Your task to perform on an android device: turn off improve location accuracy Image 0: 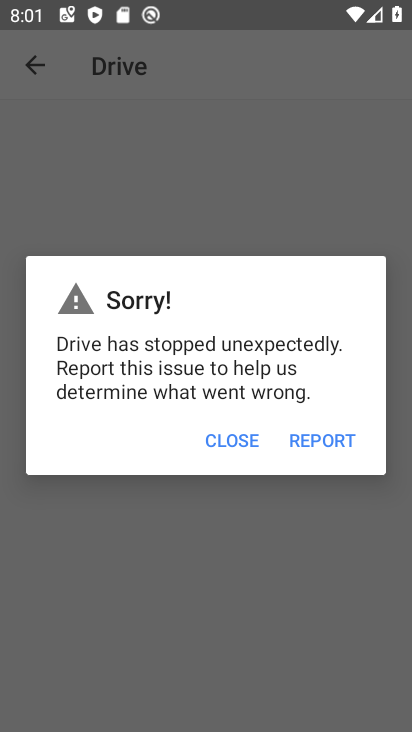
Step 0: press home button
Your task to perform on an android device: turn off improve location accuracy Image 1: 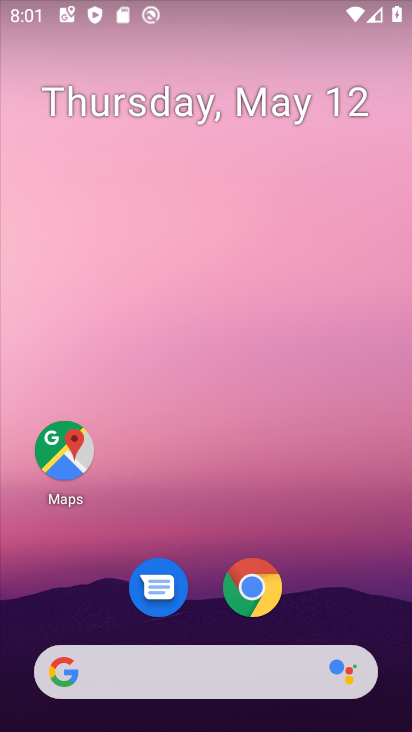
Step 1: drag from (266, 502) to (233, 110)
Your task to perform on an android device: turn off improve location accuracy Image 2: 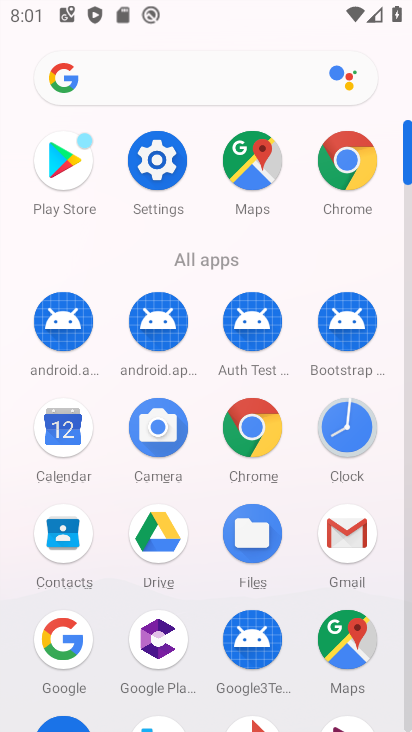
Step 2: click (159, 152)
Your task to perform on an android device: turn off improve location accuracy Image 3: 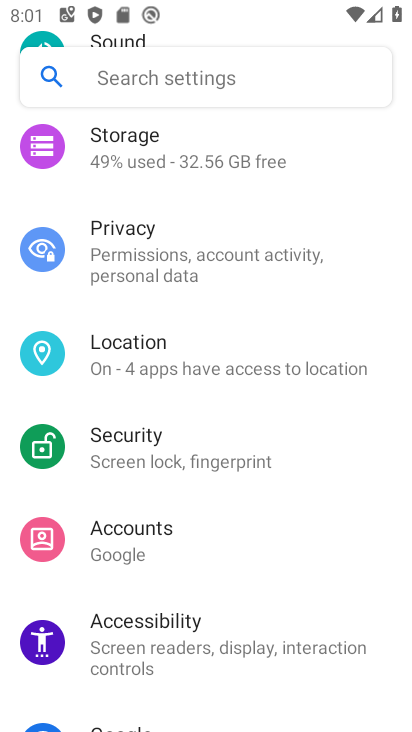
Step 3: click (187, 344)
Your task to perform on an android device: turn off improve location accuracy Image 4: 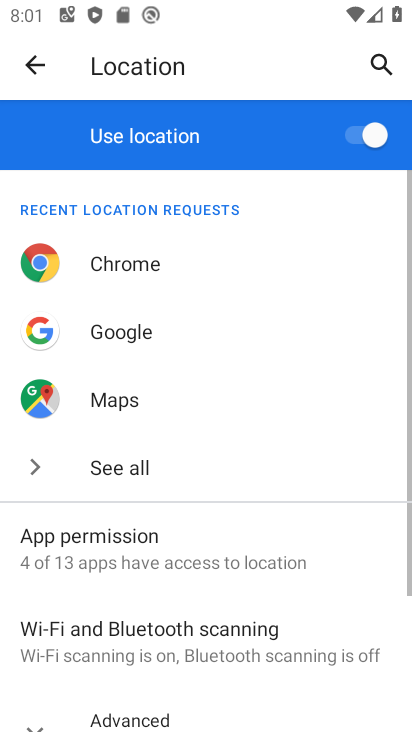
Step 4: drag from (246, 605) to (273, 380)
Your task to perform on an android device: turn off improve location accuracy Image 5: 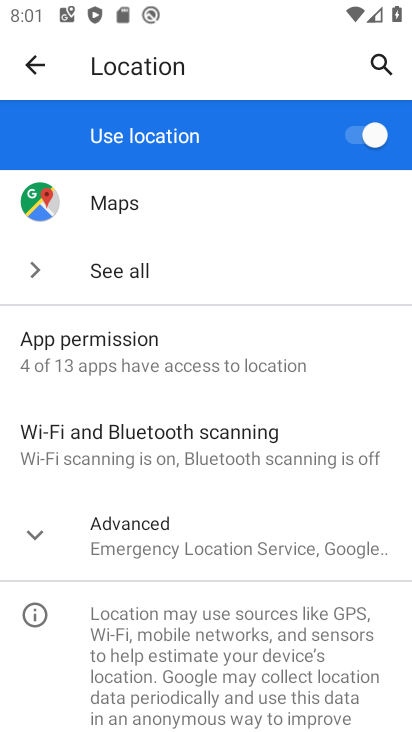
Step 5: click (189, 542)
Your task to perform on an android device: turn off improve location accuracy Image 6: 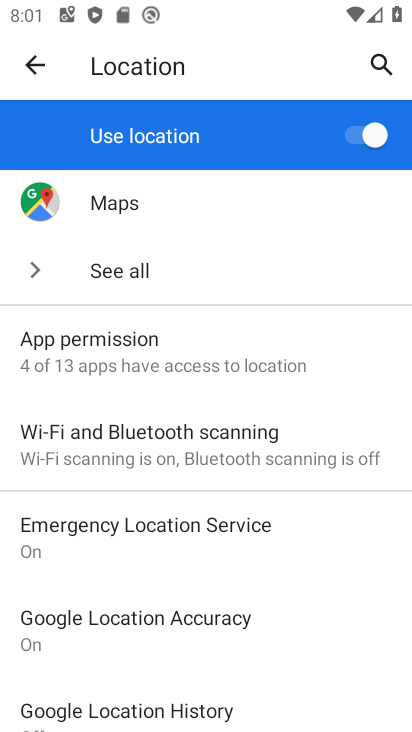
Step 6: click (214, 603)
Your task to perform on an android device: turn off improve location accuracy Image 7: 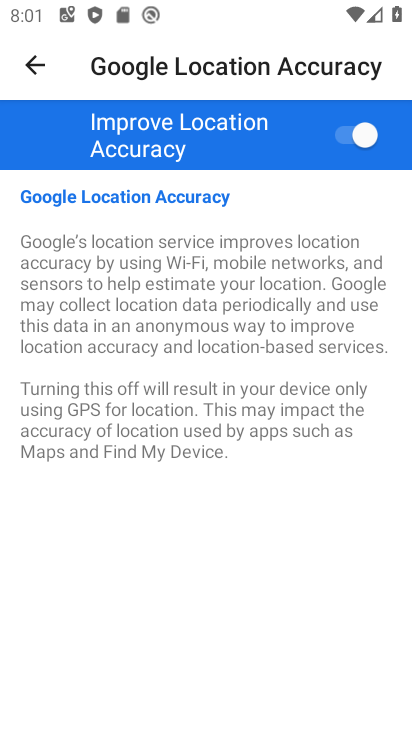
Step 7: click (355, 132)
Your task to perform on an android device: turn off improve location accuracy Image 8: 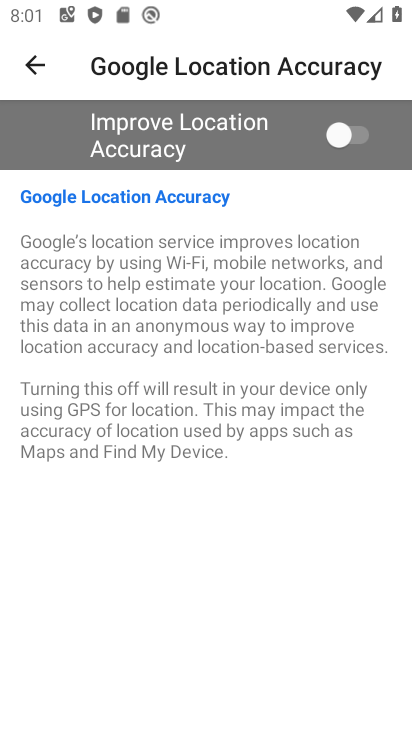
Step 8: task complete